Your task to perform on an android device: open sync settings in chrome Image 0: 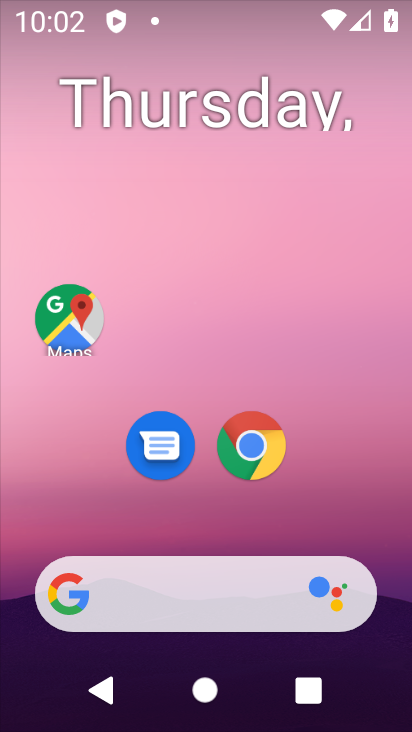
Step 0: drag from (347, 532) to (254, 55)
Your task to perform on an android device: open sync settings in chrome Image 1: 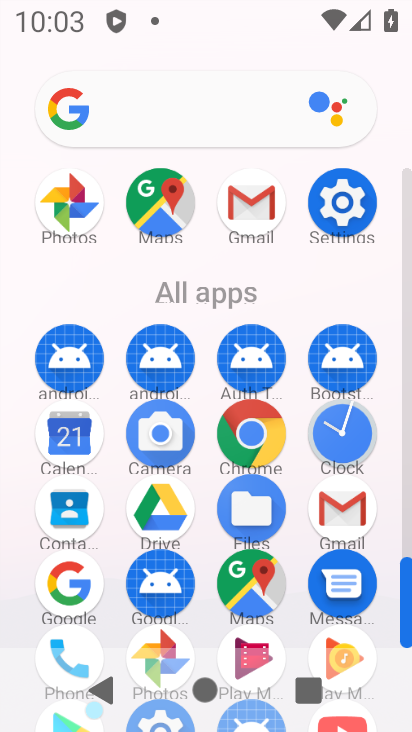
Step 1: click (250, 444)
Your task to perform on an android device: open sync settings in chrome Image 2: 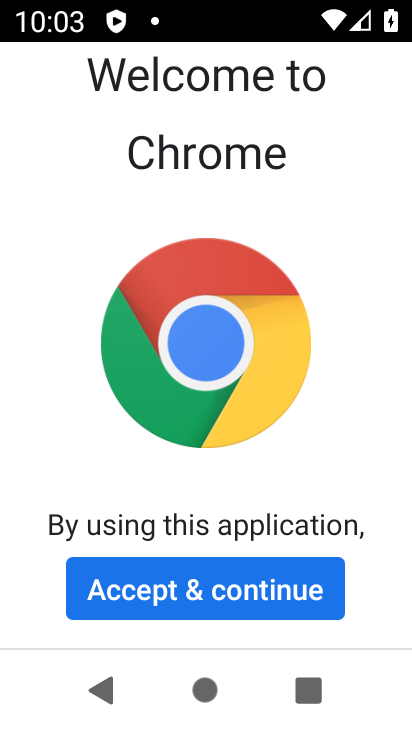
Step 2: click (227, 581)
Your task to perform on an android device: open sync settings in chrome Image 3: 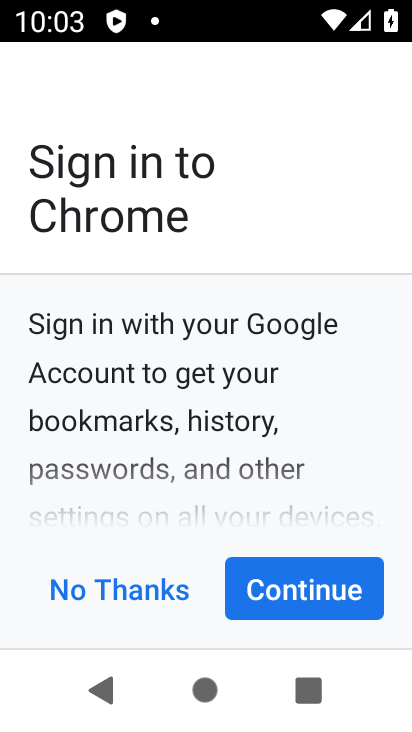
Step 3: click (264, 587)
Your task to perform on an android device: open sync settings in chrome Image 4: 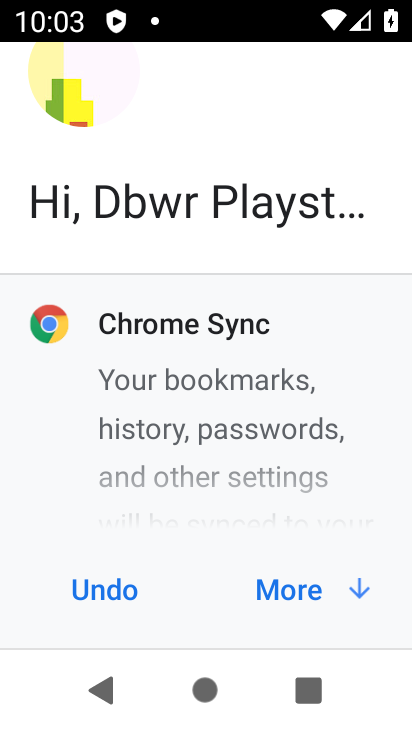
Step 4: click (264, 587)
Your task to perform on an android device: open sync settings in chrome Image 5: 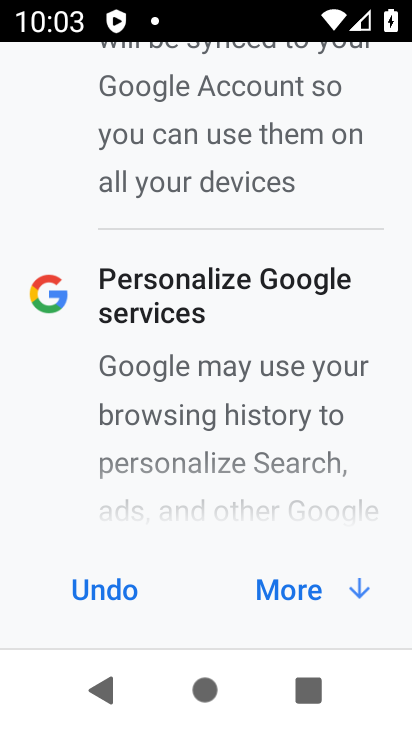
Step 5: click (264, 587)
Your task to perform on an android device: open sync settings in chrome Image 6: 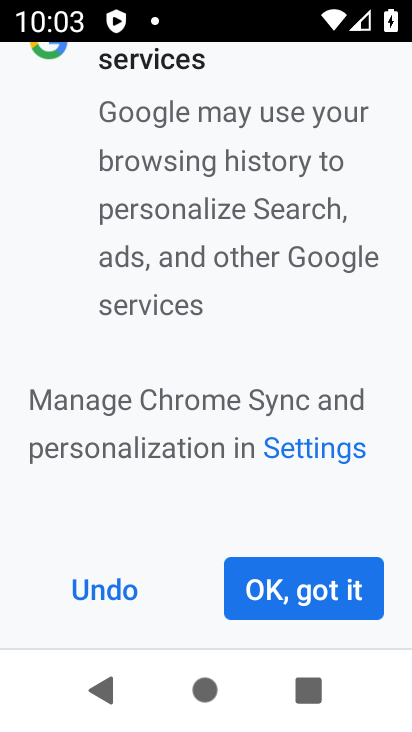
Step 6: click (264, 587)
Your task to perform on an android device: open sync settings in chrome Image 7: 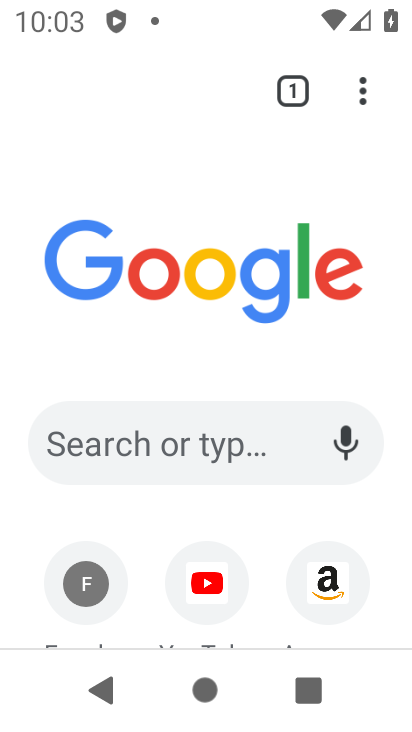
Step 7: click (363, 86)
Your task to perform on an android device: open sync settings in chrome Image 8: 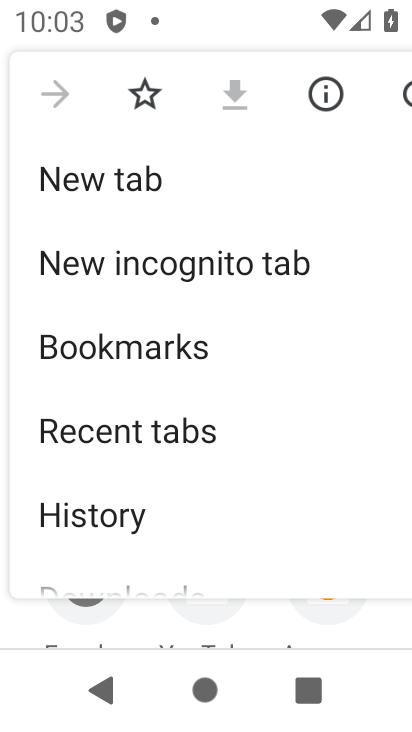
Step 8: drag from (223, 545) to (268, 106)
Your task to perform on an android device: open sync settings in chrome Image 9: 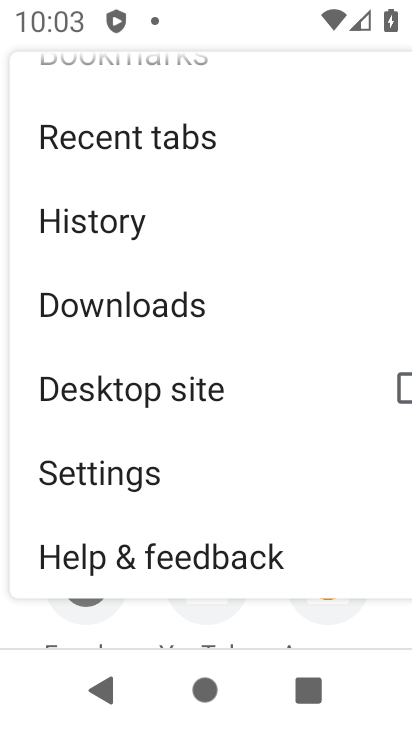
Step 9: click (142, 467)
Your task to perform on an android device: open sync settings in chrome Image 10: 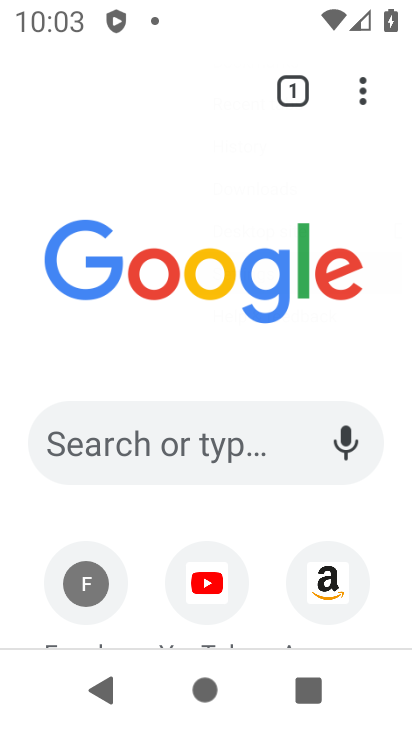
Step 10: drag from (132, 554) to (209, 124)
Your task to perform on an android device: open sync settings in chrome Image 11: 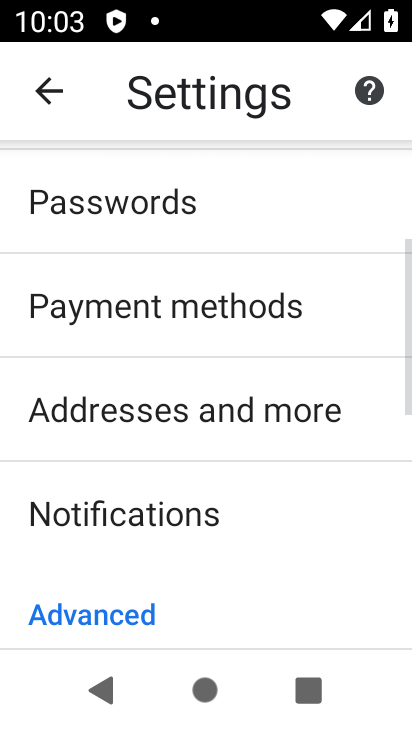
Step 11: drag from (171, 558) to (210, 164)
Your task to perform on an android device: open sync settings in chrome Image 12: 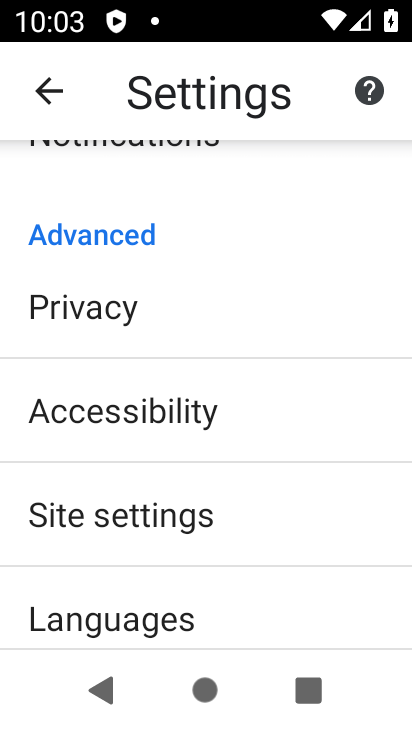
Step 12: click (171, 534)
Your task to perform on an android device: open sync settings in chrome Image 13: 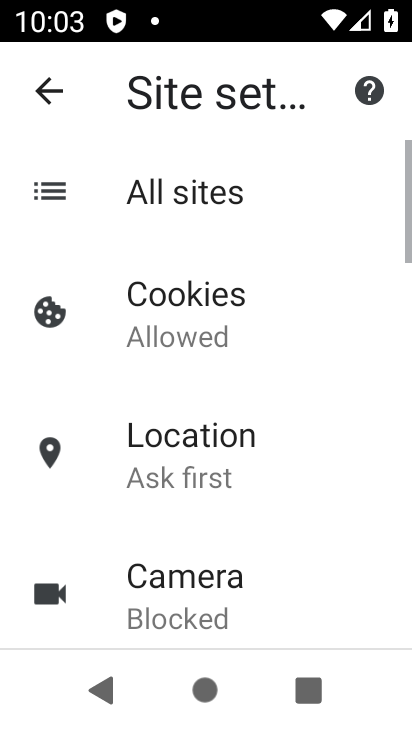
Step 13: drag from (139, 615) to (206, 169)
Your task to perform on an android device: open sync settings in chrome Image 14: 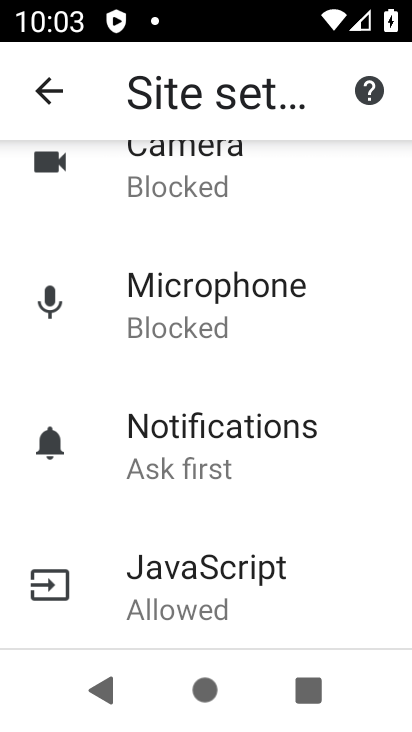
Step 14: drag from (200, 580) to (246, 237)
Your task to perform on an android device: open sync settings in chrome Image 15: 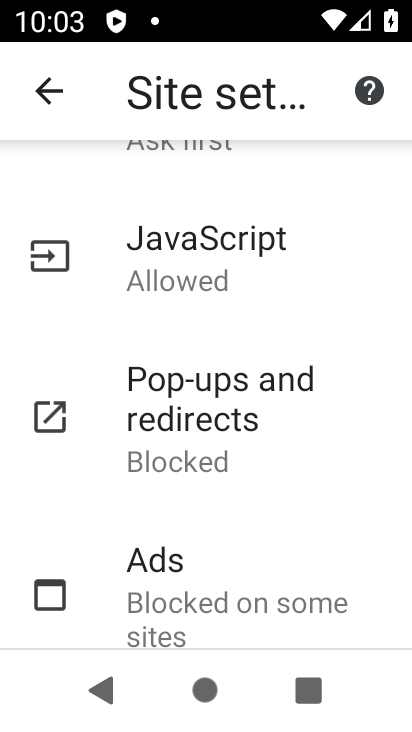
Step 15: drag from (126, 595) to (223, 274)
Your task to perform on an android device: open sync settings in chrome Image 16: 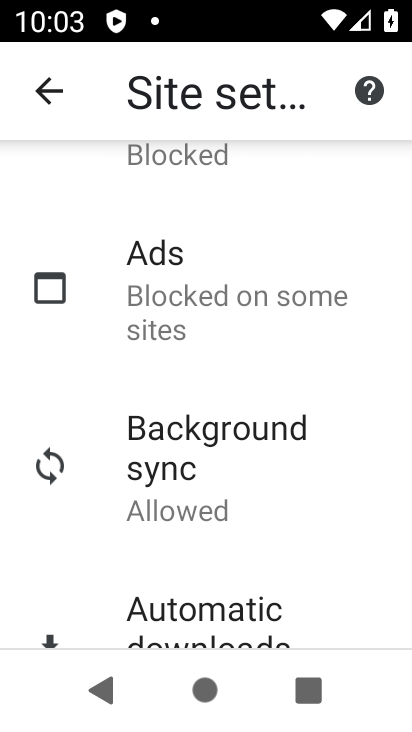
Step 16: click (230, 459)
Your task to perform on an android device: open sync settings in chrome Image 17: 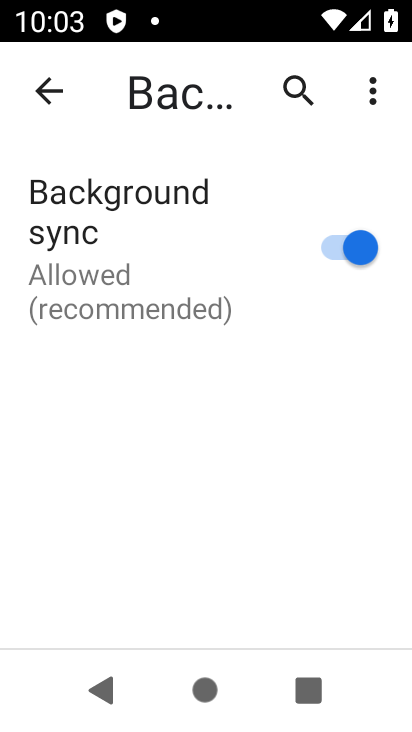
Step 17: task complete